Your task to perform on an android device: turn on sleep mode Image 0: 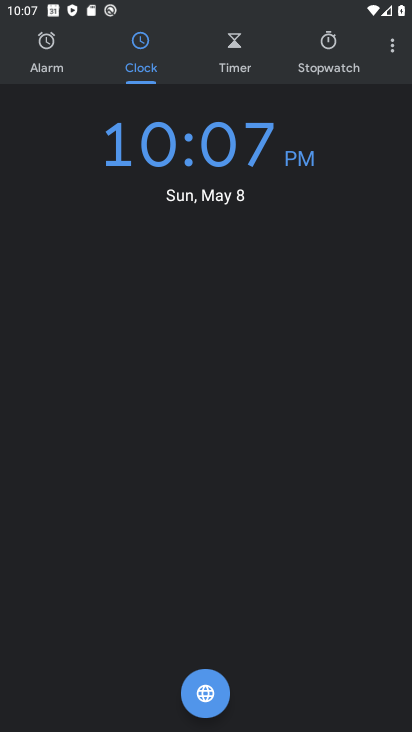
Step 0: press home button
Your task to perform on an android device: turn on sleep mode Image 1: 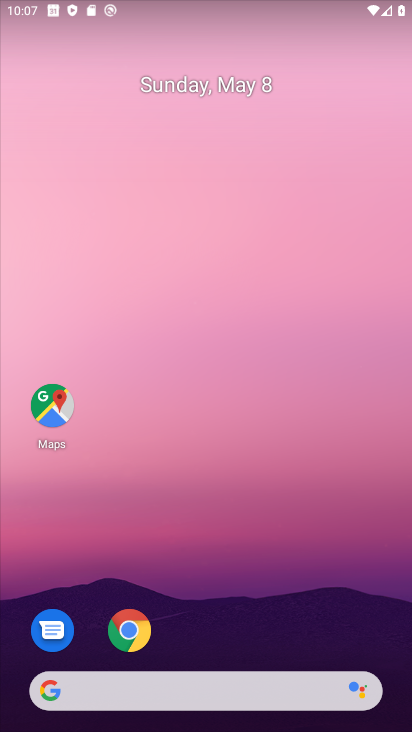
Step 1: drag from (222, 725) to (223, 120)
Your task to perform on an android device: turn on sleep mode Image 2: 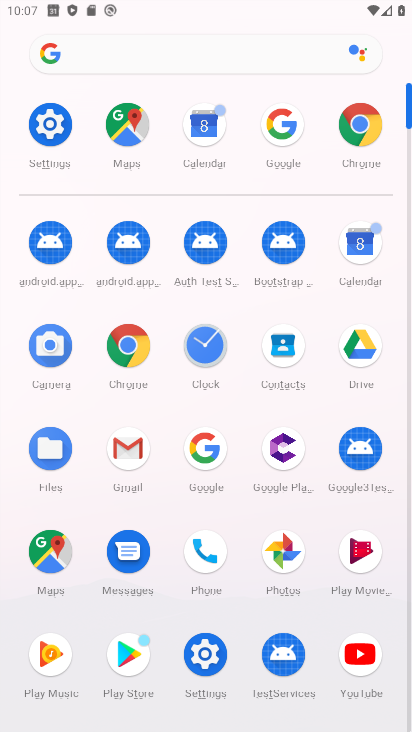
Step 2: click (201, 652)
Your task to perform on an android device: turn on sleep mode Image 3: 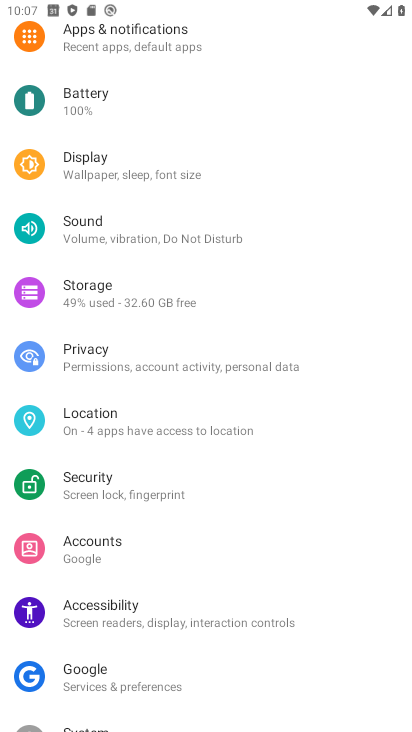
Step 3: drag from (188, 114) to (191, 414)
Your task to perform on an android device: turn on sleep mode Image 4: 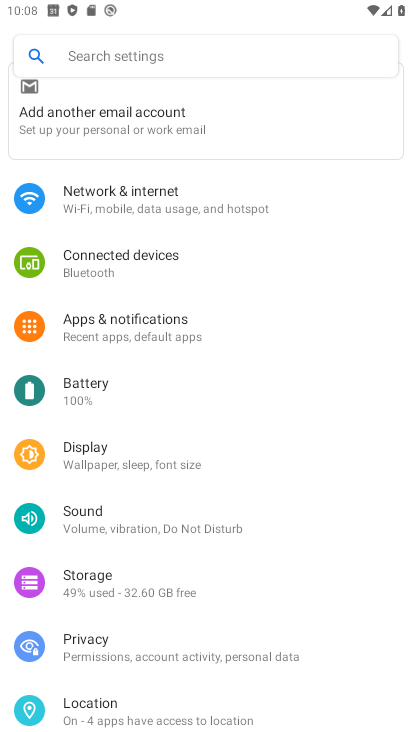
Step 4: drag from (167, 688) to (172, 263)
Your task to perform on an android device: turn on sleep mode Image 5: 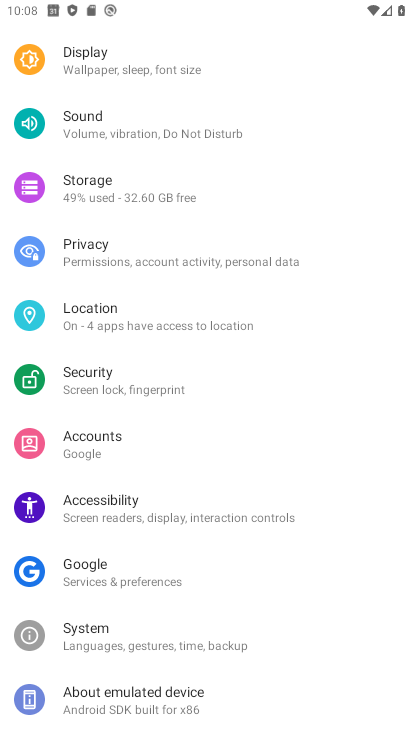
Step 5: drag from (224, 152) to (223, 338)
Your task to perform on an android device: turn on sleep mode Image 6: 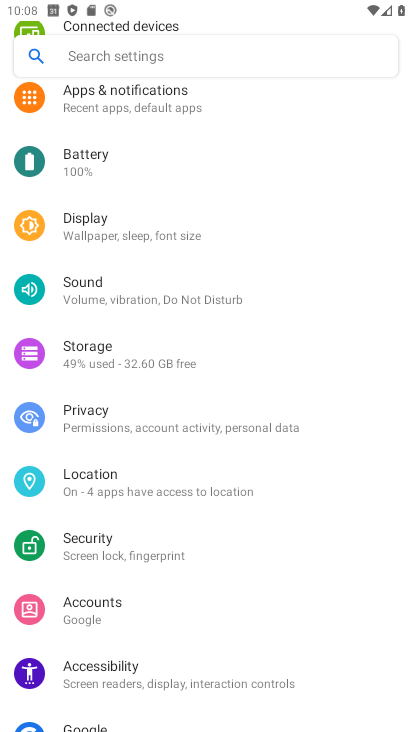
Step 6: click (141, 239)
Your task to perform on an android device: turn on sleep mode Image 7: 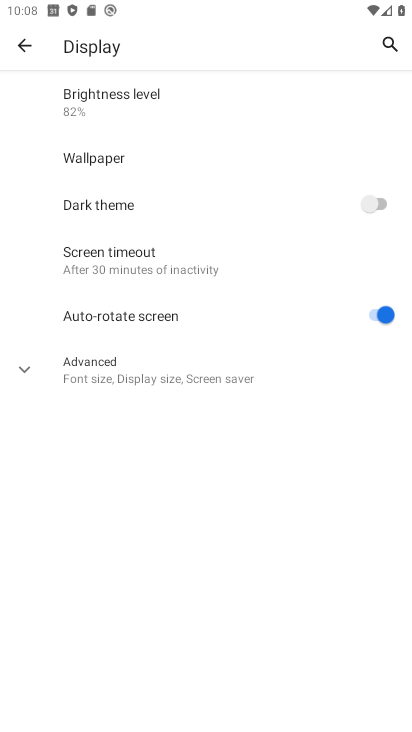
Step 7: task complete